Your task to perform on an android device: Search for flights from San Diego to Seattle Image 0: 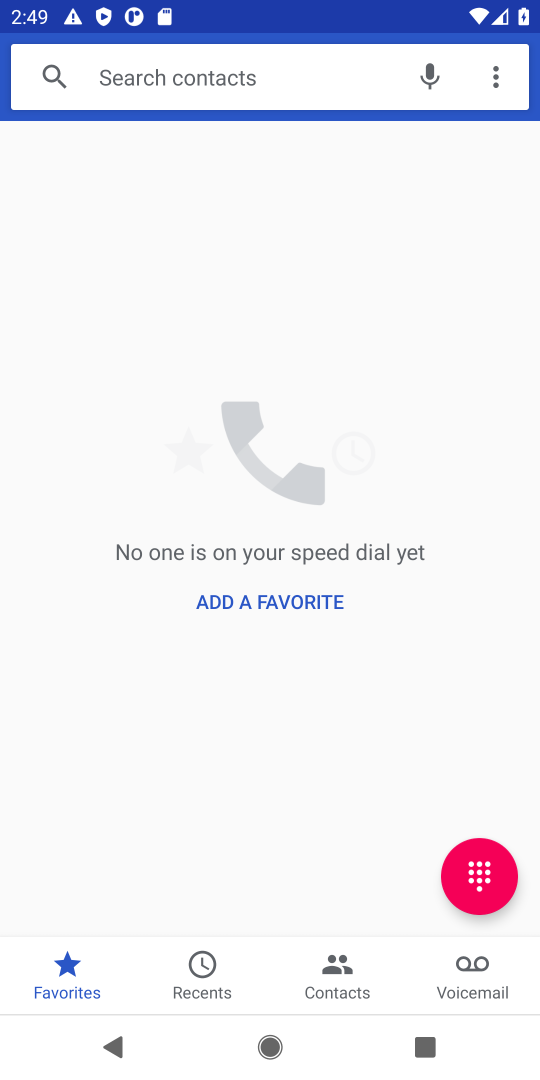
Step 0: press home button
Your task to perform on an android device: Search for flights from San Diego to Seattle Image 1: 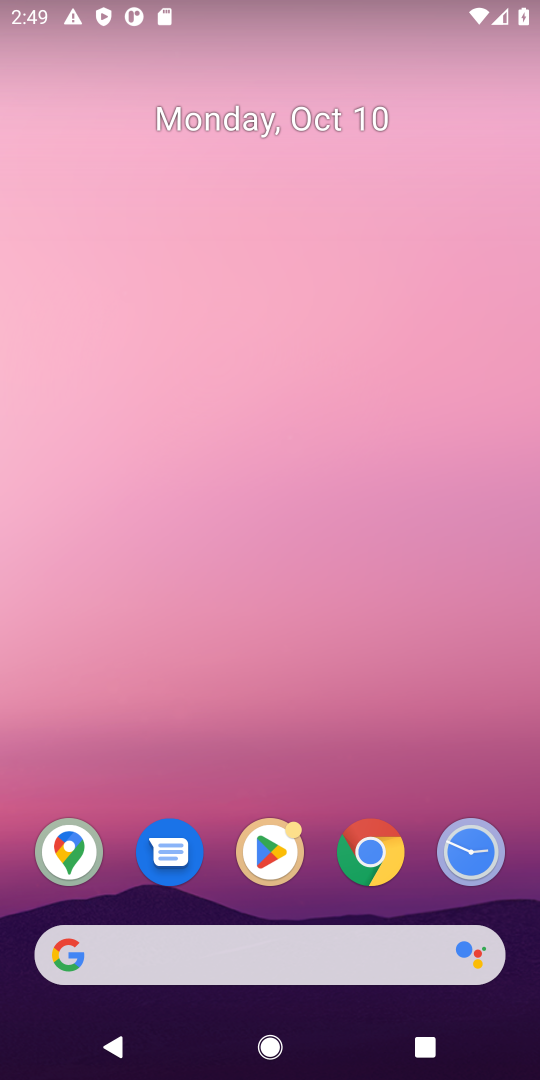
Step 1: click (138, 963)
Your task to perform on an android device: Search for flights from San Diego to Seattle Image 2: 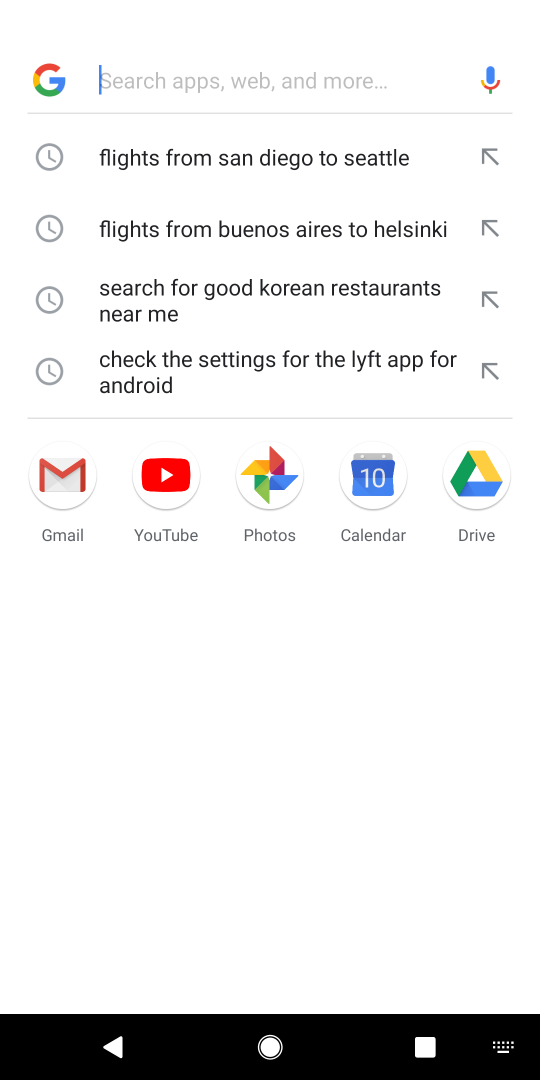
Step 2: type "flights from San Diego to Seattle"
Your task to perform on an android device: Search for flights from San Diego to Seattle Image 3: 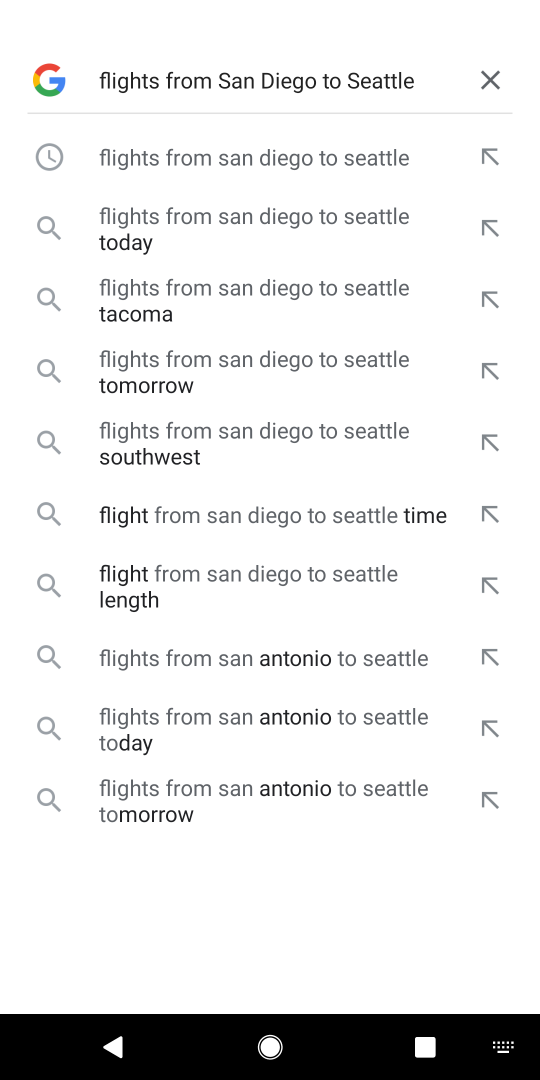
Step 3: click (312, 166)
Your task to perform on an android device: Search for flights from San Diego to Seattle Image 4: 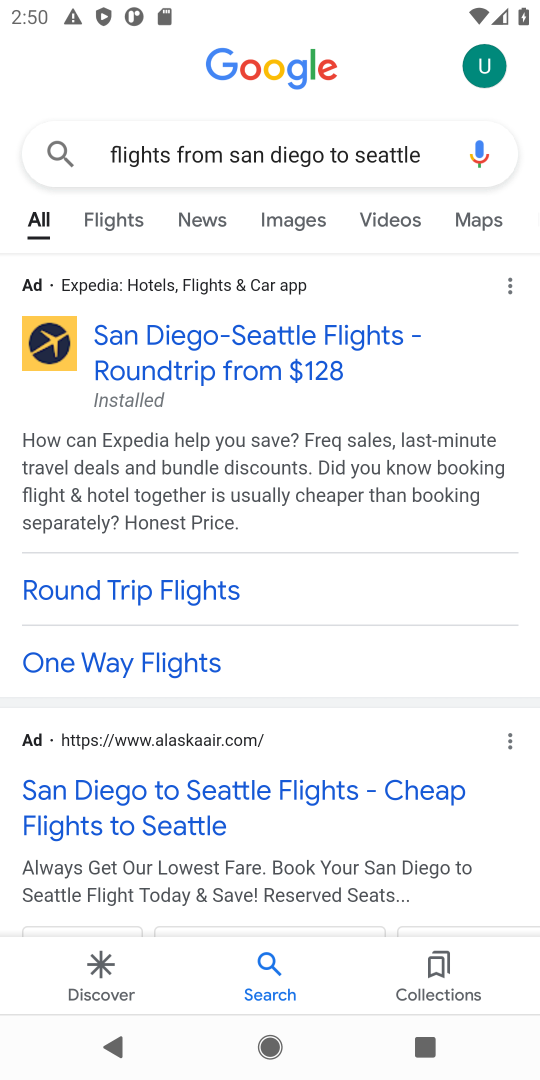
Step 4: task complete